Your task to perform on an android device: When is my next meeting? Image 0: 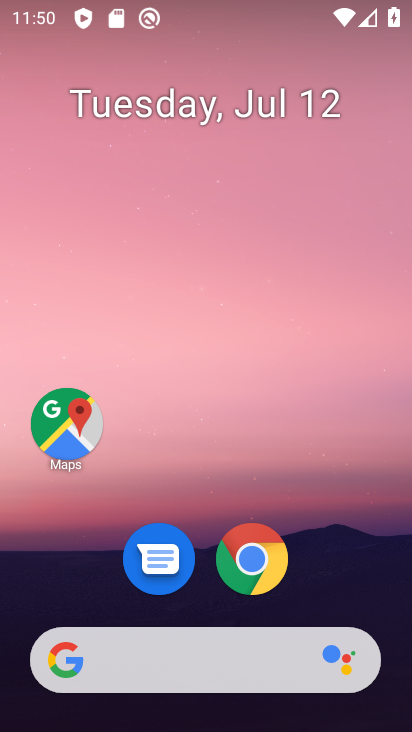
Step 0: drag from (202, 673) to (190, 167)
Your task to perform on an android device: When is my next meeting? Image 1: 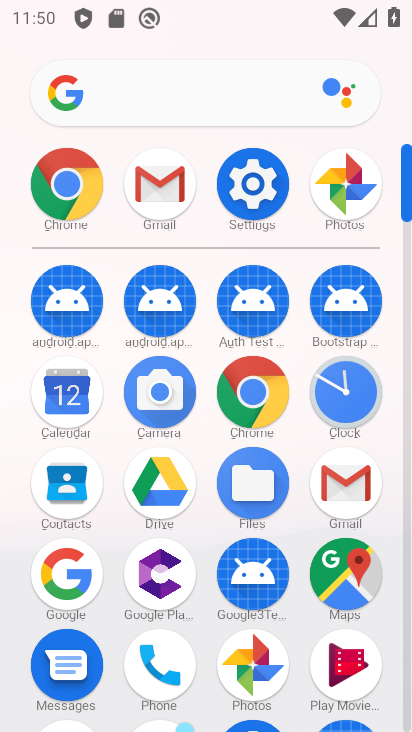
Step 1: click (62, 399)
Your task to perform on an android device: When is my next meeting? Image 2: 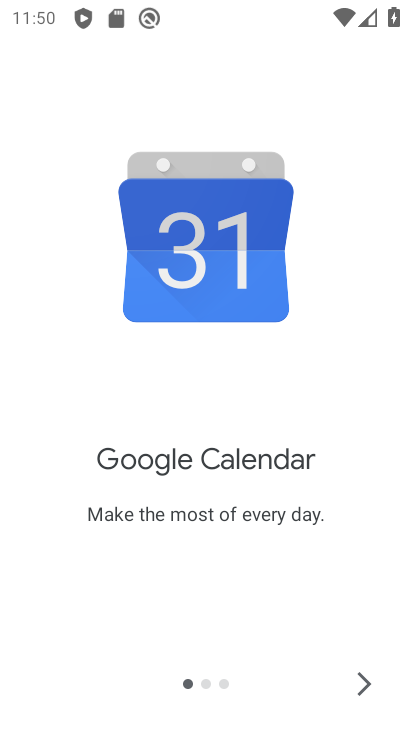
Step 2: click (348, 679)
Your task to perform on an android device: When is my next meeting? Image 3: 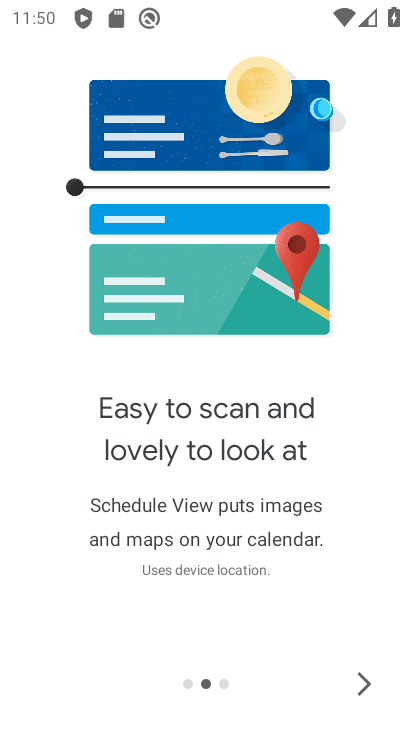
Step 3: click (363, 690)
Your task to perform on an android device: When is my next meeting? Image 4: 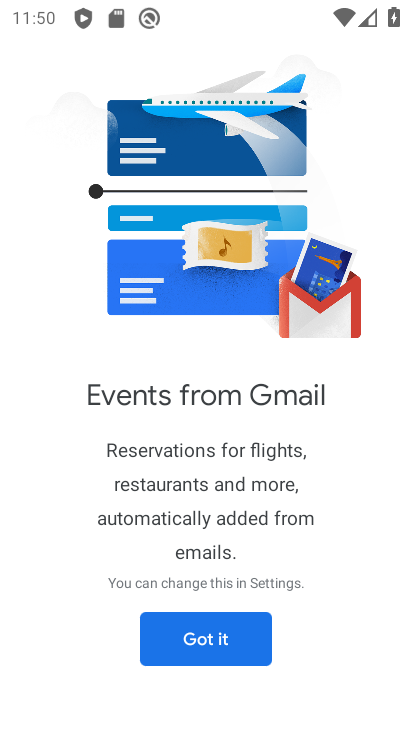
Step 4: click (232, 640)
Your task to perform on an android device: When is my next meeting? Image 5: 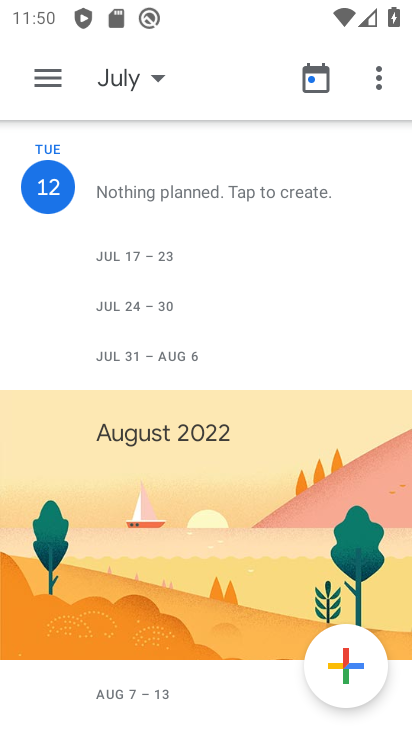
Step 5: click (47, 93)
Your task to perform on an android device: When is my next meeting? Image 6: 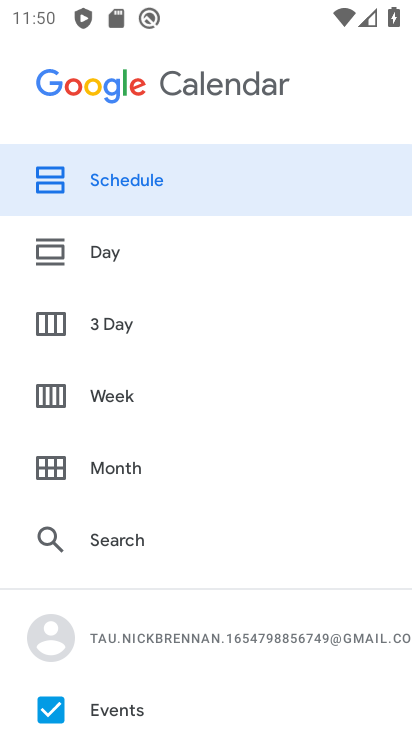
Step 6: drag from (81, 621) to (95, 272)
Your task to perform on an android device: When is my next meeting? Image 7: 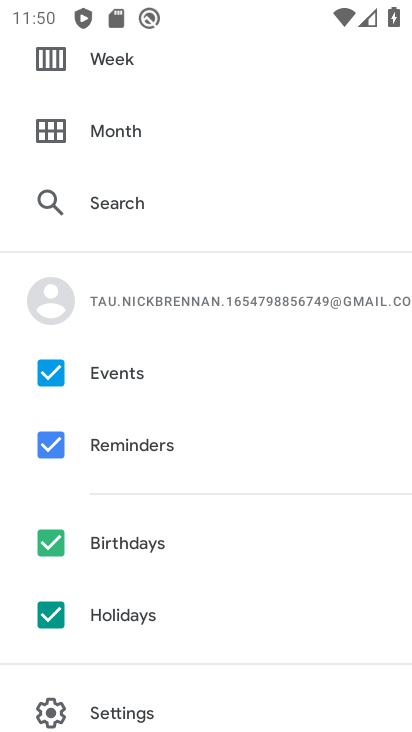
Step 7: click (60, 618)
Your task to perform on an android device: When is my next meeting? Image 8: 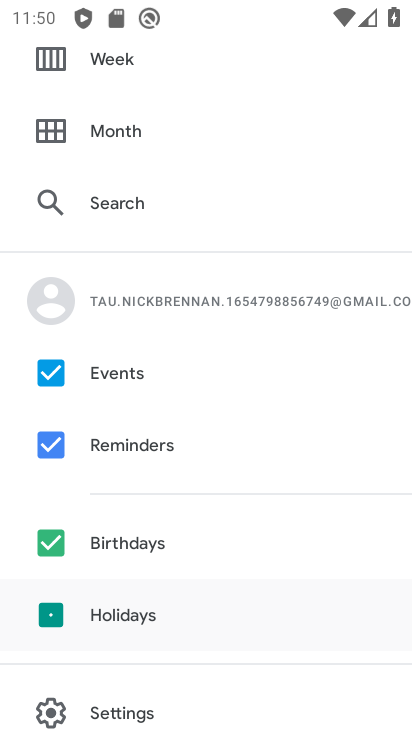
Step 8: click (57, 553)
Your task to perform on an android device: When is my next meeting? Image 9: 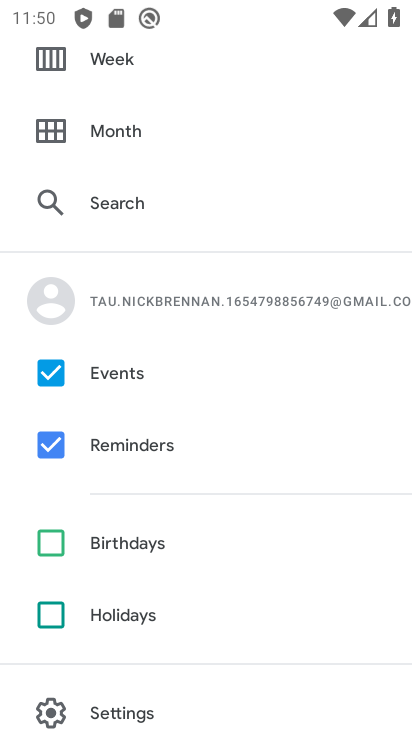
Step 9: task complete